Your task to perform on an android device: Search for vegetarian restaurants on Maps Image 0: 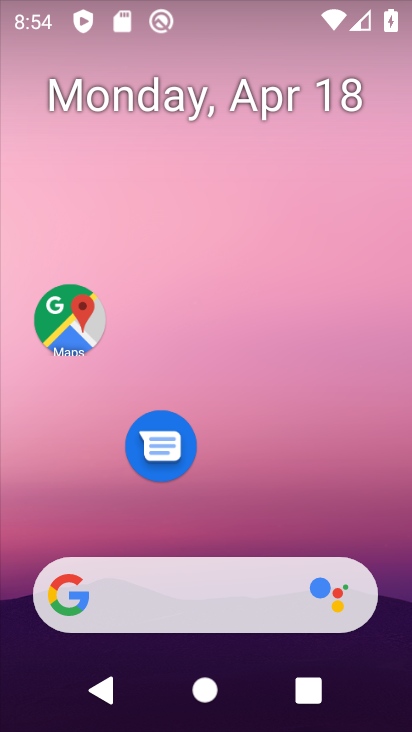
Step 0: press home button
Your task to perform on an android device: Search for vegetarian restaurants on Maps Image 1: 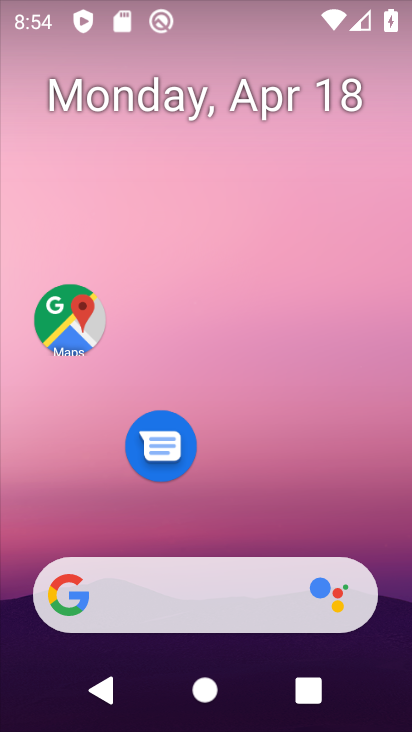
Step 1: click (71, 317)
Your task to perform on an android device: Search for vegetarian restaurants on Maps Image 2: 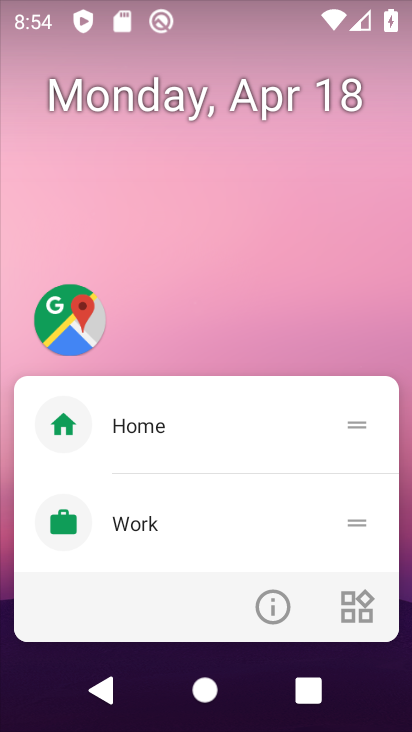
Step 2: click (190, 289)
Your task to perform on an android device: Search for vegetarian restaurants on Maps Image 3: 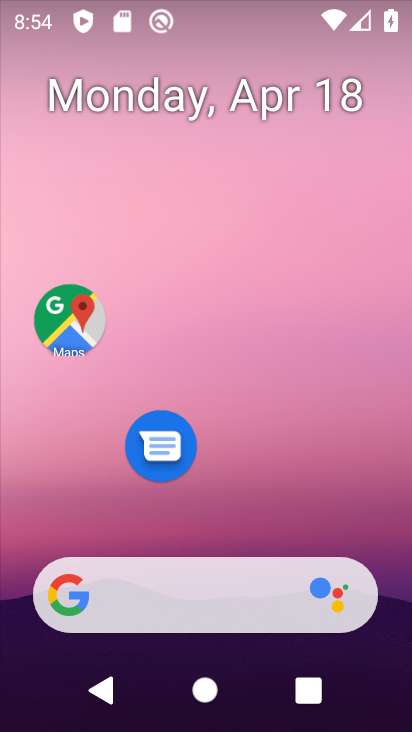
Step 3: click (71, 316)
Your task to perform on an android device: Search for vegetarian restaurants on Maps Image 4: 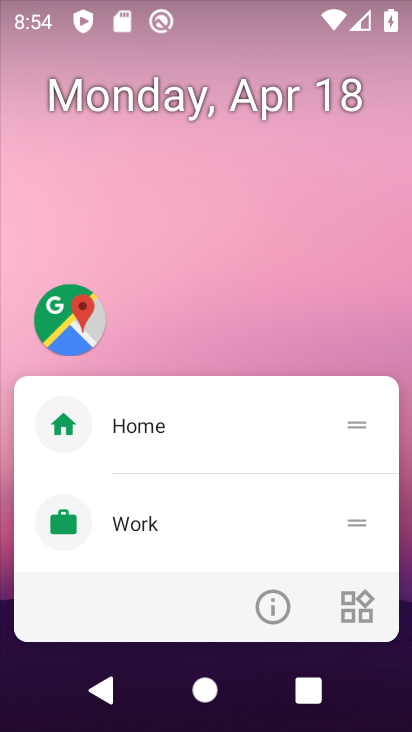
Step 4: click (188, 275)
Your task to perform on an android device: Search for vegetarian restaurants on Maps Image 5: 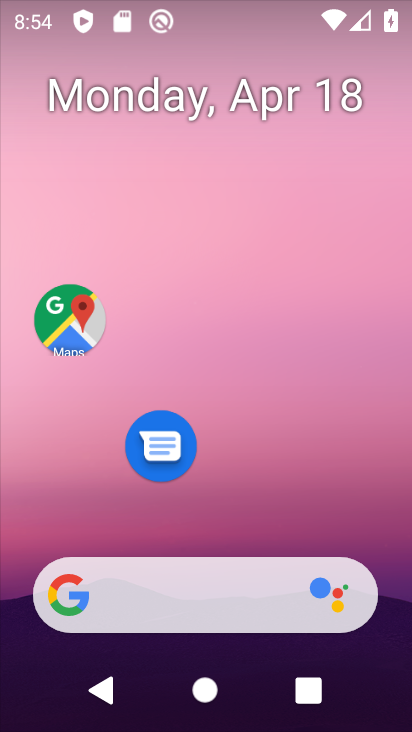
Step 5: click (190, 208)
Your task to perform on an android device: Search for vegetarian restaurants on Maps Image 6: 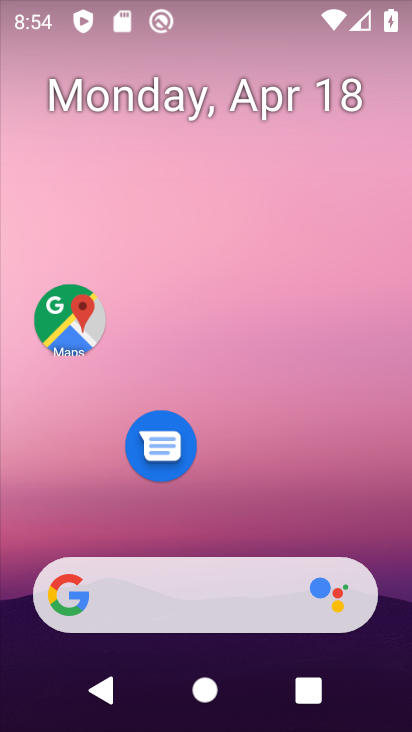
Step 6: click (71, 314)
Your task to perform on an android device: Search for vegetarian restaurants on Maps Image 7: 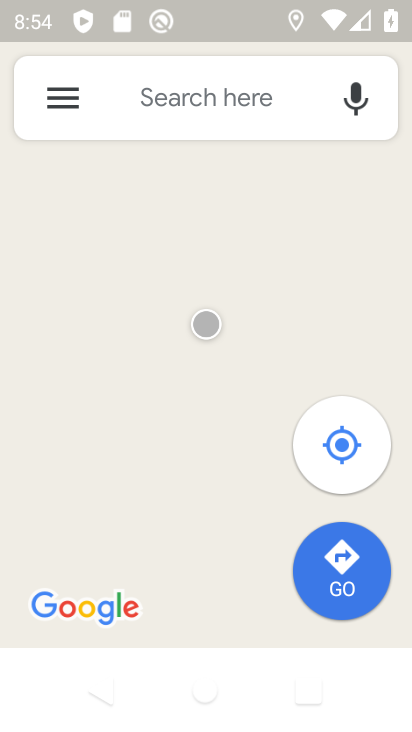
Step 7: click (161, 91)
Your task to perform on an android device: Search for vegetarian restaurants on Maps Image 8: 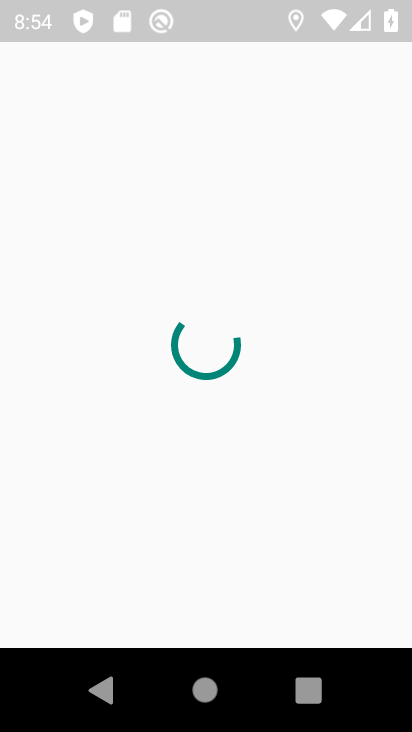
Step 8: click (363, 504)
Your task to perform on an android device: Search for vegetarian restaurants on Maps Image 9: 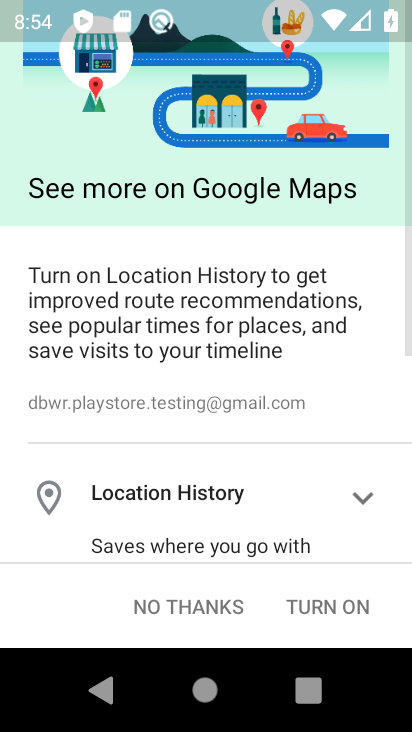
Step 9: click (195, 607)
Your task to perform on an android device: Search for vegetarian restaurants on Maps Image 10: 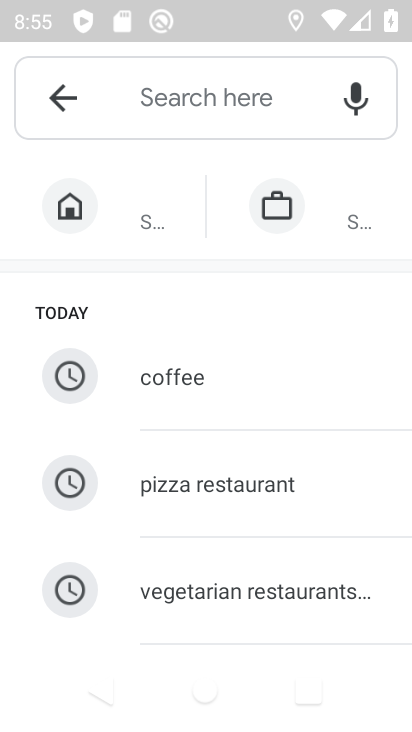
Step 10: click (240, 584)
Your task to perform on an android device: Search for vegetarian restaurants on Maps Image 11: 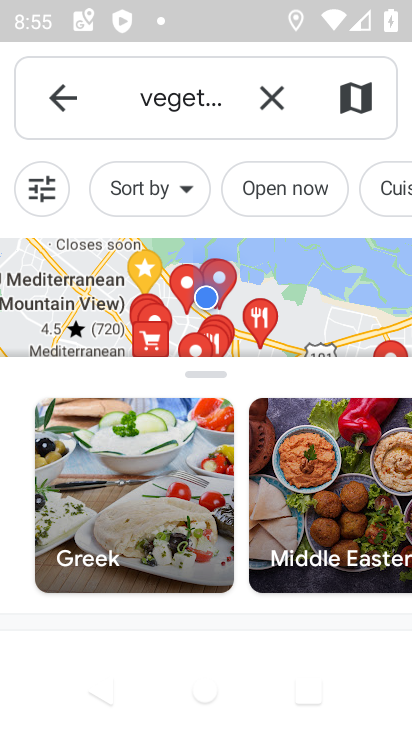
Step 11: task complete